Your task to perform on an android device: Search for vegetarian restaurants on Maps Image 0: 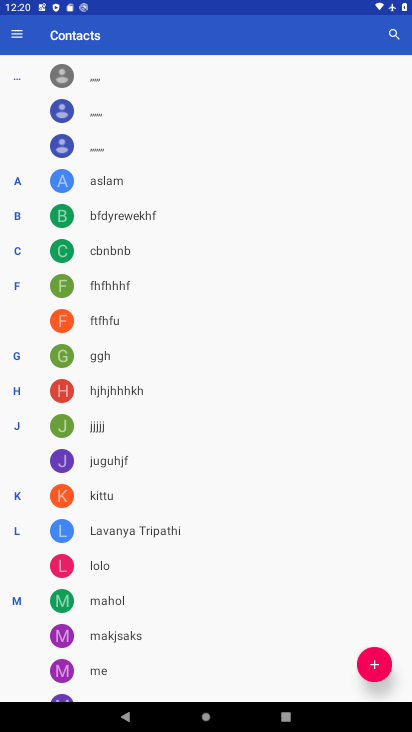
Step 0: press home button
Your task to perform on an android device: Search for vegetarian restaurants on Maps Image 1: 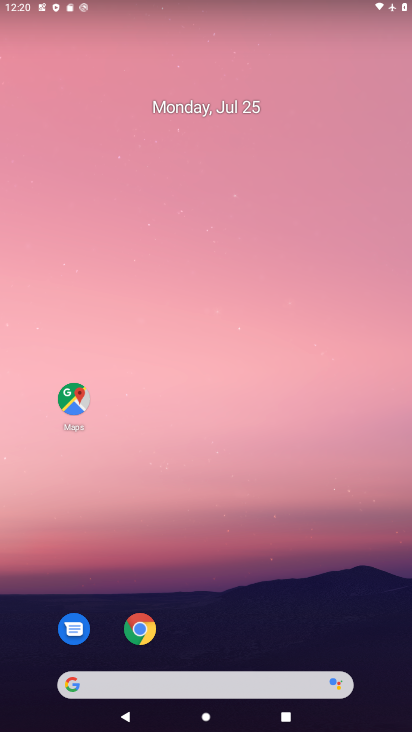
Step 1: click (85, 401)
Your task to perform on an android device: Search for vegetarian restaurants on Maps Image 2: 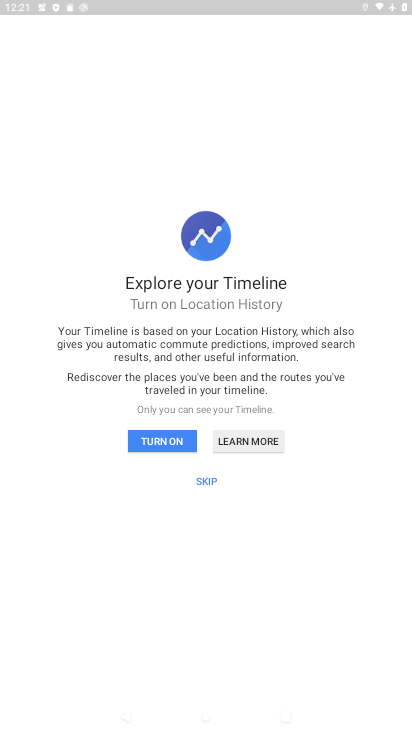
Step 2: click (201, 476)
Your task to perform on an android device: Search for vegetarian restaurants on Maps Image 3: 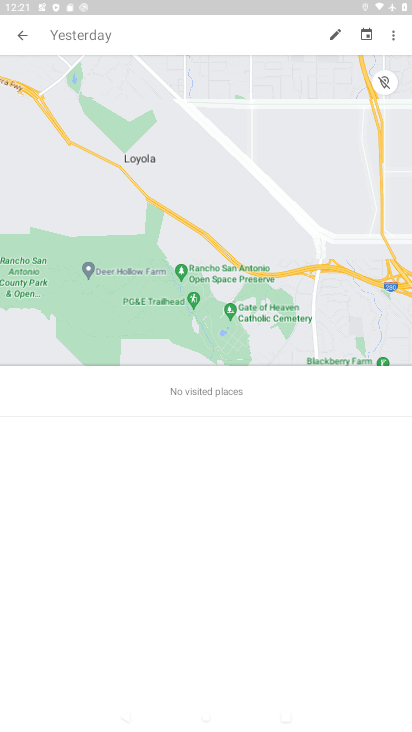
Step 3: task complete